Your task to perform on an android device: Open ESPN.com Image 0: 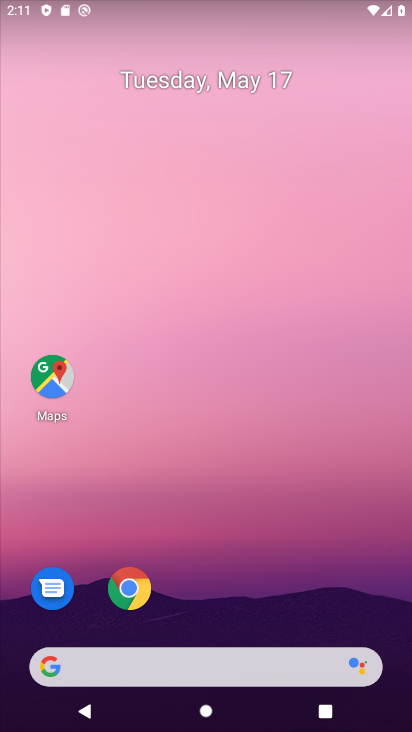
Step 0: click (130, 584)
Your task to perform on an android device: Open ESPN.com Image 1: 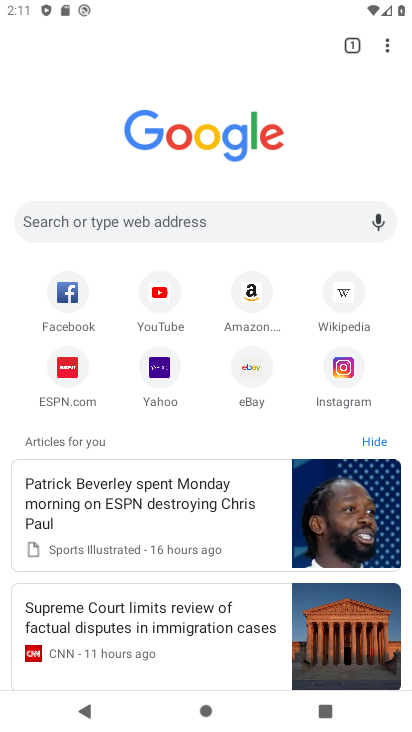
Step 1: click (62, 371)
Your task to perform on an android device: Open ESPN.com Image 2: 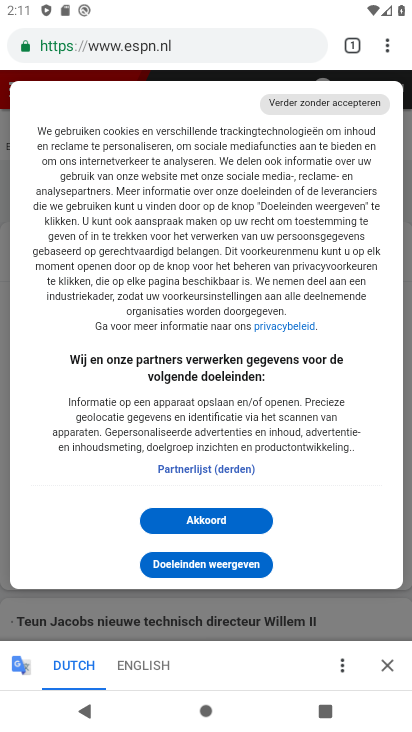
Step 2: task complete